Your task to perform on an android device: What's the weather going to be this weekend? Image 0: 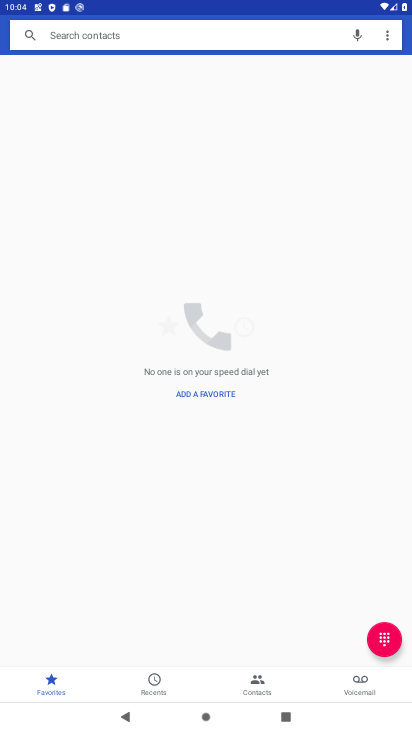
Step 0: drag from (219, 537) to (284, 331)
Your task to perform on an android device: What's the weather going to be this weekend? Image 1: 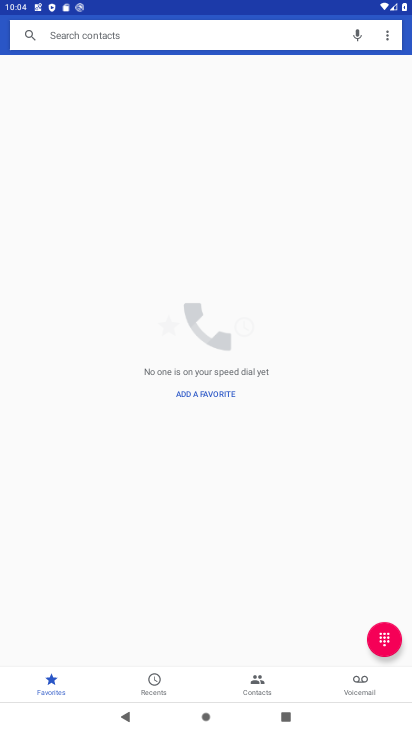
Step 1: press home button
Your task to perform on an android device: What's the weather going to be this weekend? Image 2: 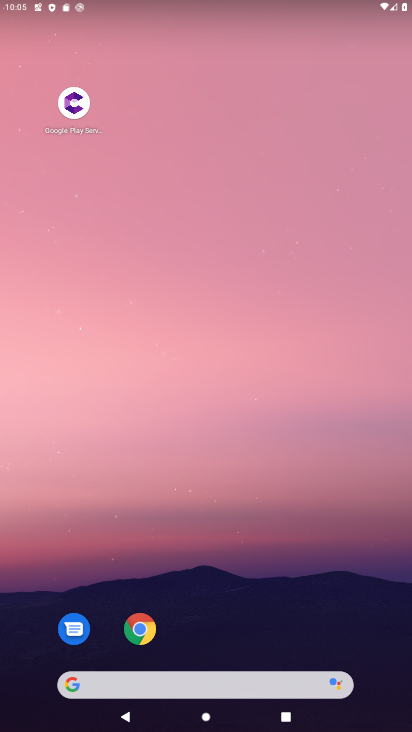
Step 2: drag from (190, 562) to (221, 178)
Your task to perform on an android device: What's the weather going to be this weekend? Image 3: 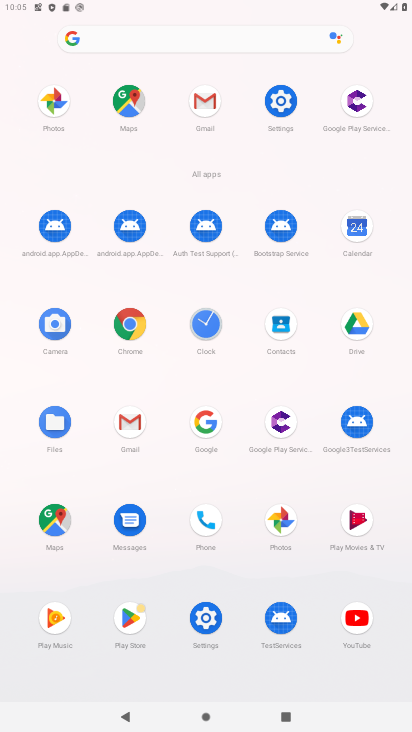
Step 3: click (125, 46)
Your task to perform on an android device: What's the weather going to be this weekend? Image 4: 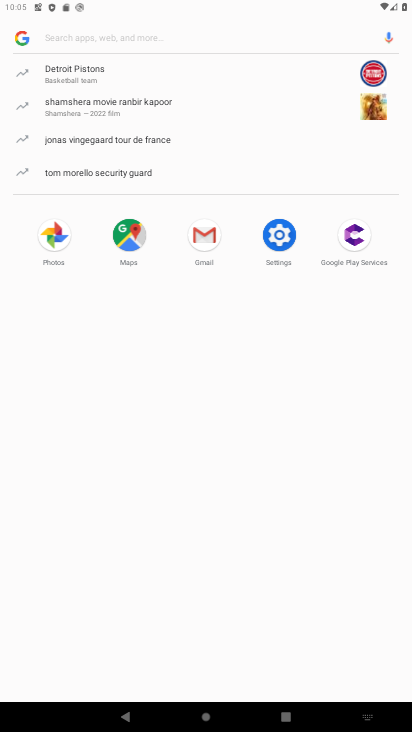
Step 4: type "What's the weather going to be this weekend?"
Your task to perform on an android device: What's the weather going to be this weekend? Image 5: 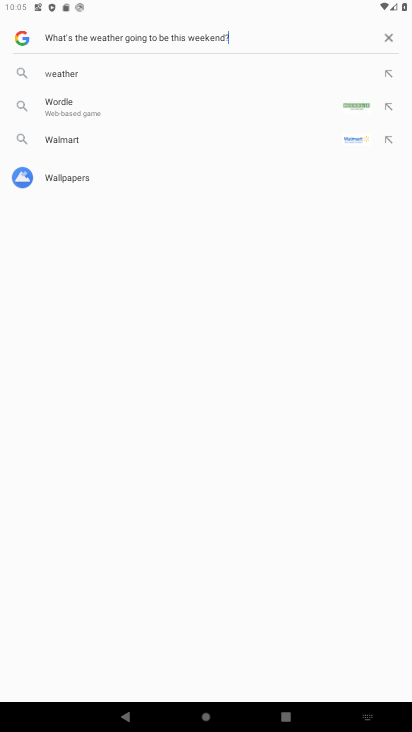
Step 5: type ""
Your task to perform on an android device: What's the weather going to be this weekend? Image 6: 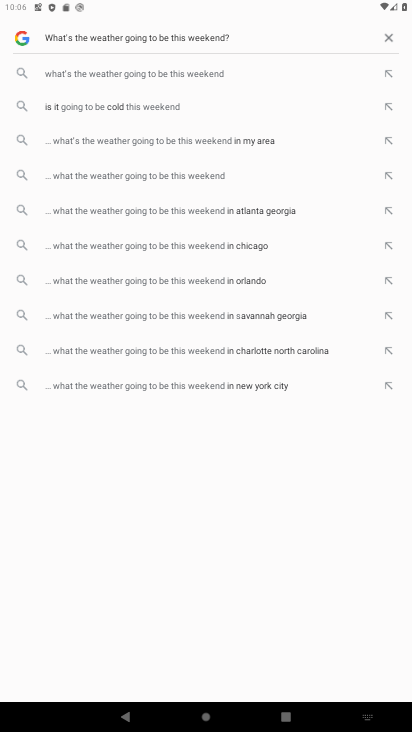
Step 6: click (203, 72)
Your task to perform on an android device: What's the weather going to be this weekend? Image 7: 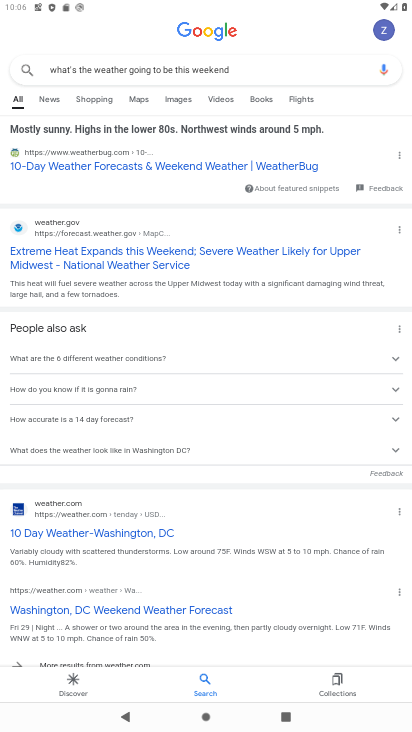
Step 7: task complete